Your task to perform on an android device: When is my next appointment? Image 0: 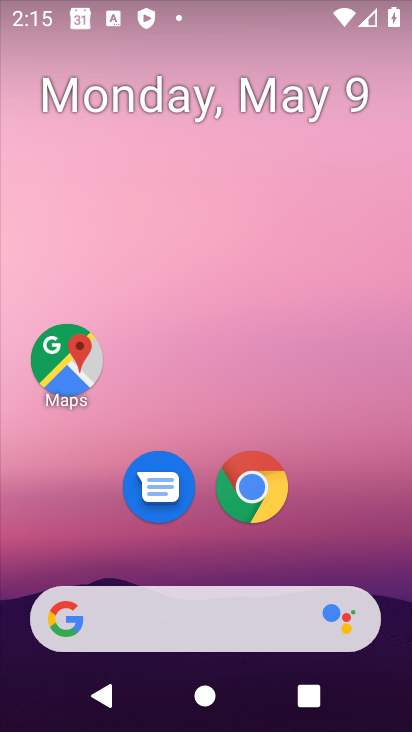
Step 0: drag from (342, 515) to (237, 50)
Your task to perform on an android device: When is my next appointment? Image 1: 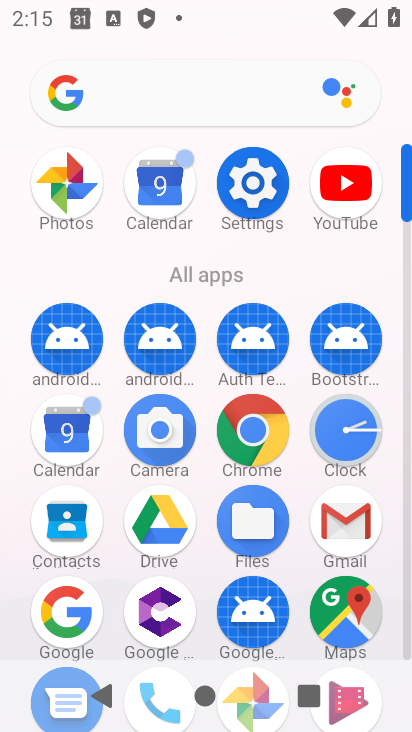
Step 1: click (70, 418)
Your task to perform on an android device: When is my next appointment? Image 2: 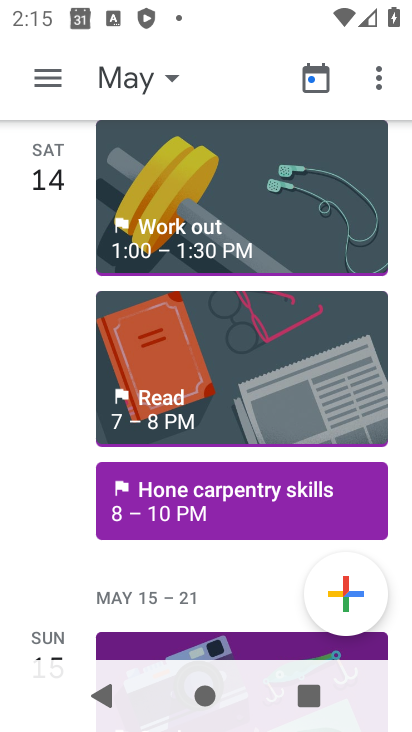
Step 2: drag from (207, 219) to (241, 598)
Your task to perform on an android device: When is my next appointment? Image 3: 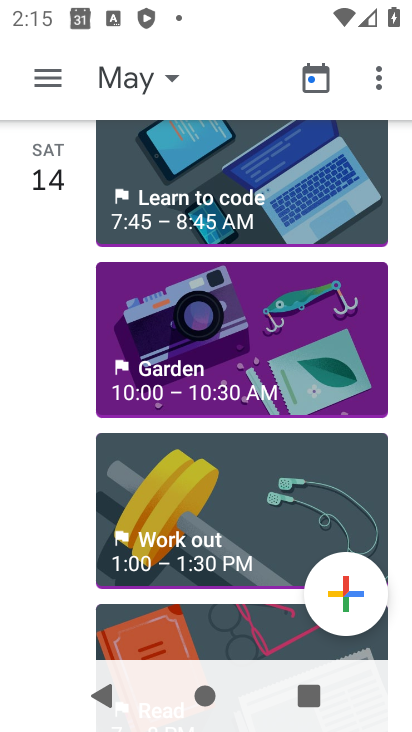
Step 3: click (41, 67)
Your task to perform on an android device: When is my next appointment? Image 4: 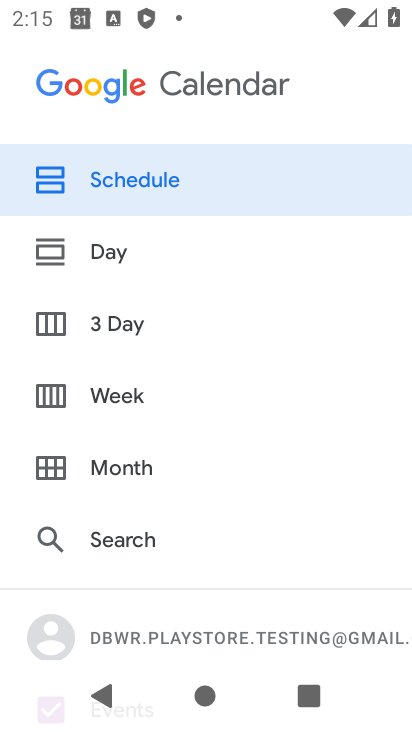
Step 4: click (132, 173)
Your task to perform on an android device: When is my next appointment? Image 5: 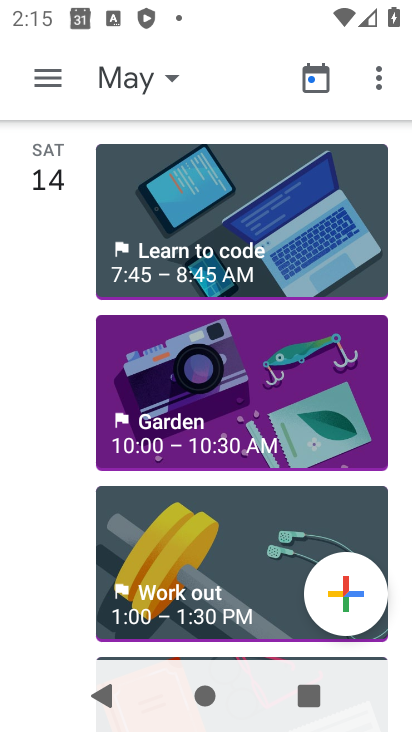
Step 5: drag from (151, 187) to (223, 688)
Your task to perform on an android device: When is my next appointment? Image 6: 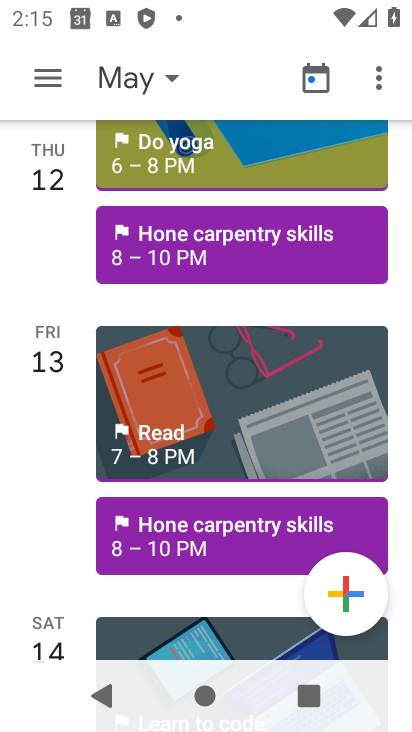
Step 6: drag from (232, 200) to (286, 639)
Your task to perform on an android device: When is my next appointment? Image 7: 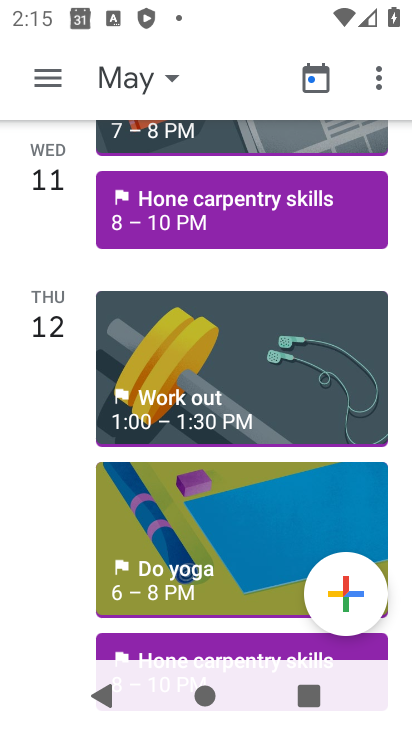
Step 7: drag from (211, 229) to (197, 669)
Your task to perform on an android device: When is my next appointment? Image 8: 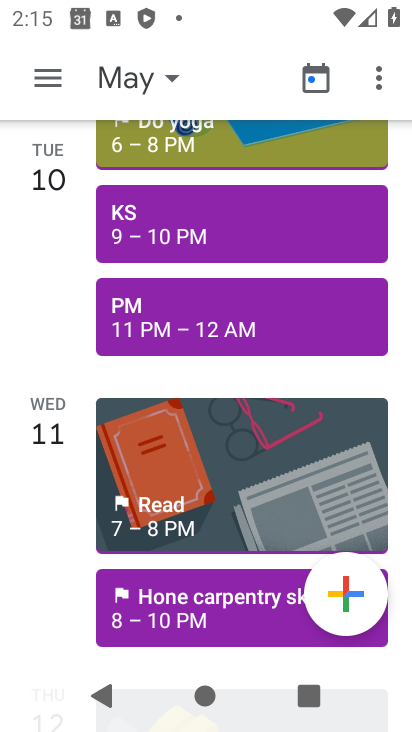
Step 8: drag from (189, 215) to (204, 608)
Your task to perform on an android device: When is my next appointment? Image 9: 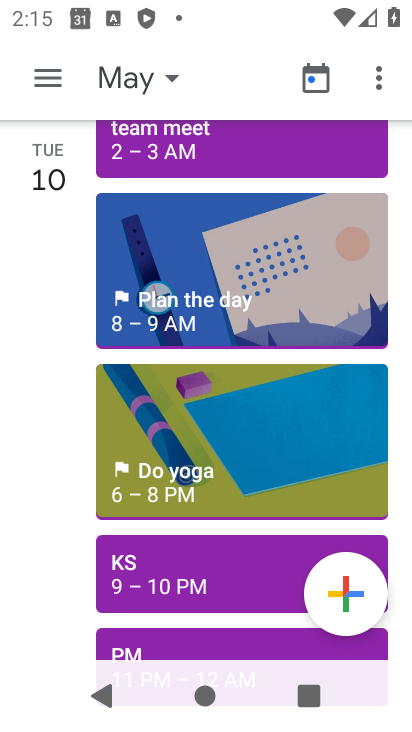
Step 9: drag from (207, 191) to (219, 638)
Your task to perform on an android device: When is my next appointment? Image 10: 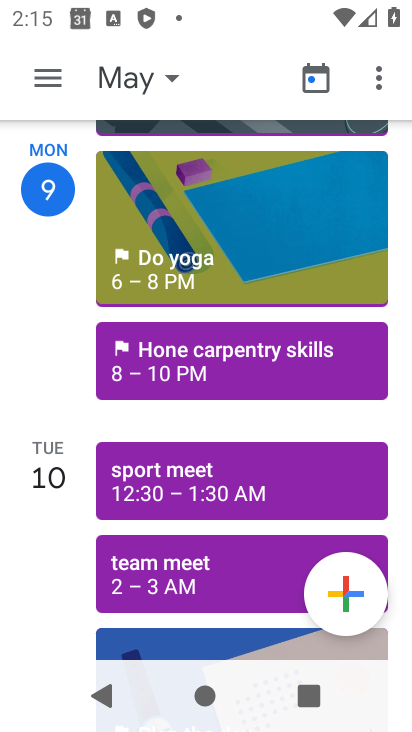
Step 10: drag from (217, 205) to (231, 699)
Your task to perform on an android device: When is my next appointment? Image 11: 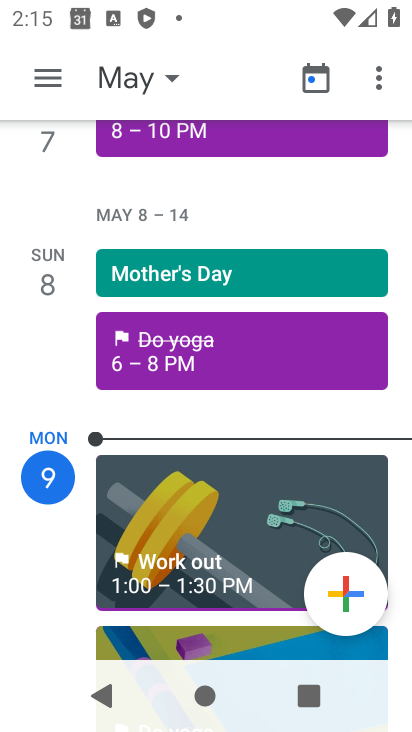
Step 11: click (200, 543)
Your task to perform on an android device: When is my next appointment? Image 12: 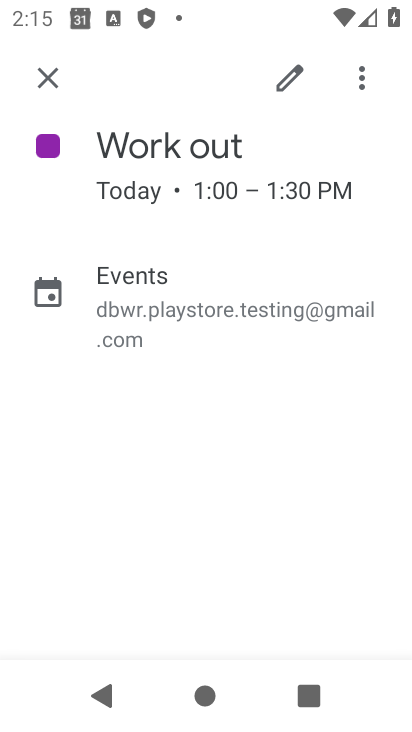
Step 12: task complete